Your task to perform on an android device: turn off notifications in google photos Image 0: 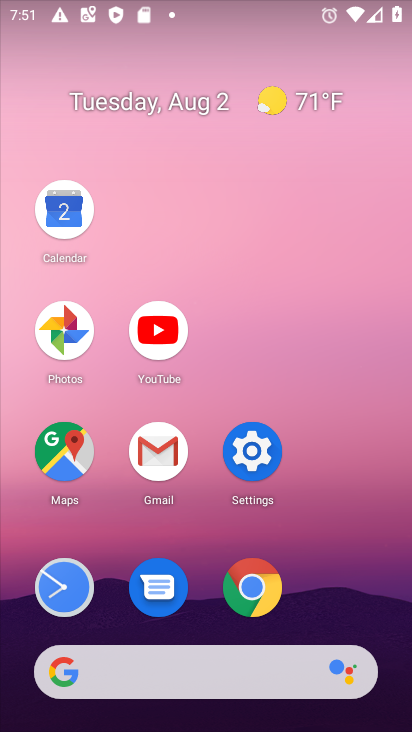
Step 0: click (64, 337)
Your task to perform on an android device: turn off notifications in google photos Image 1: 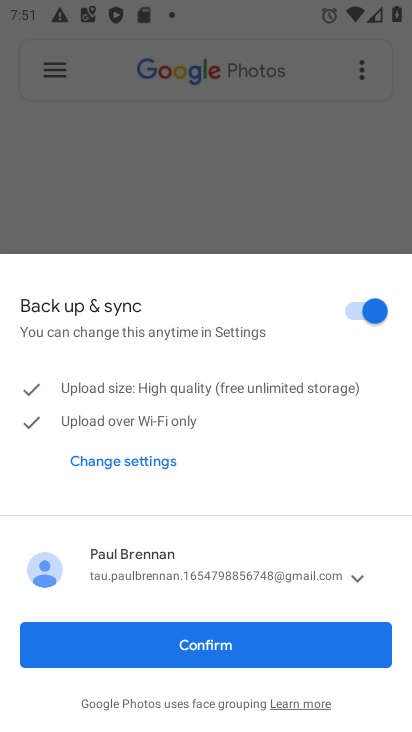
Step 1: click (240, 636)
Your task to perform on an android device: turn off notifications in google photos Image 2: 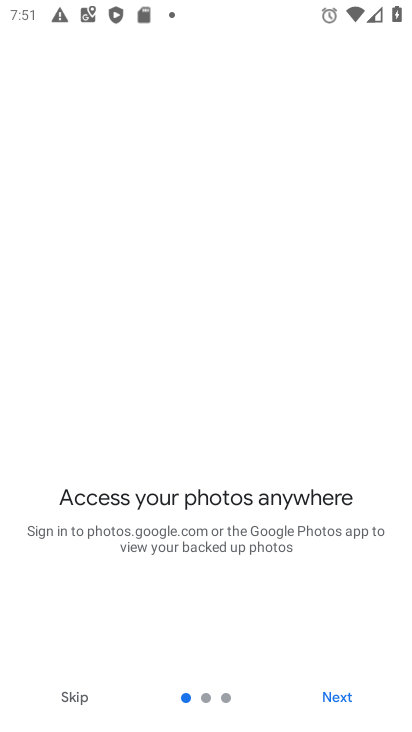
Step 2: click (345, 695)
Your task to perform on an android device: turn off notifications in google photos Image 3: 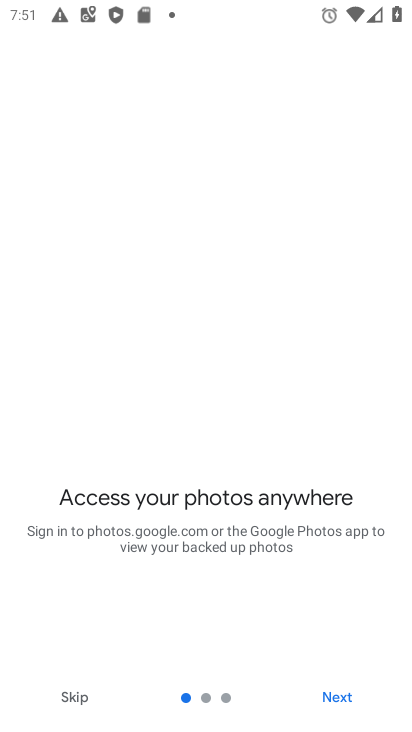
Step 3: click (345, 695)
Your task to perform on an android device: turn off notifications in google photos Image 4: 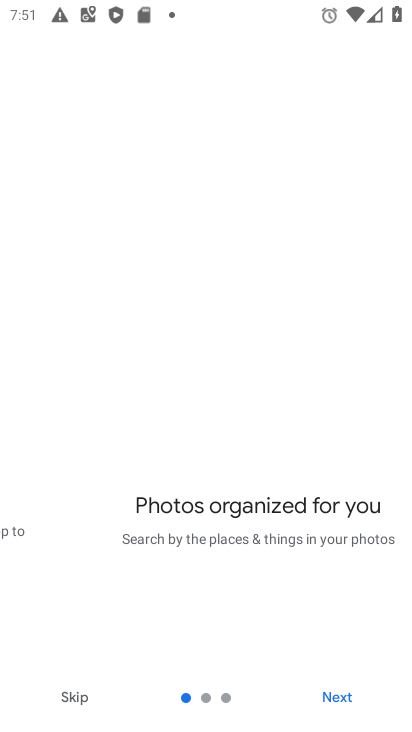
Step 4: click (345, 695)
Your task to perform on an android device: turn off notifications in google photos Image 5: 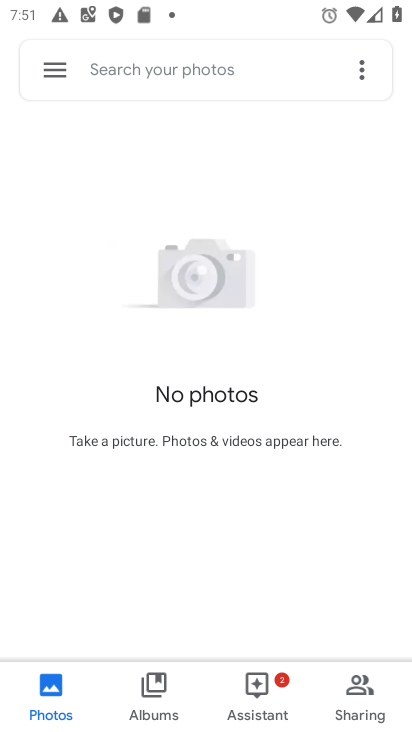
Step 5: click (51, 74)
Your task to perform on an android device: turn off notifications in google photos Image 6: 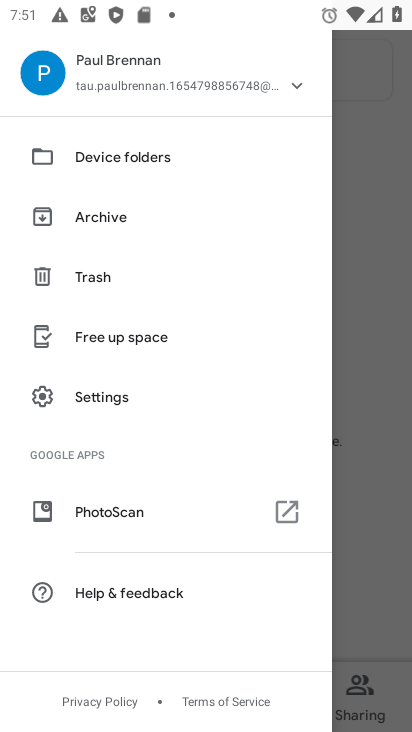
Step 6: click (102, 394)
Your task to perform on an android device: turn off notifications in google photos Image 7: 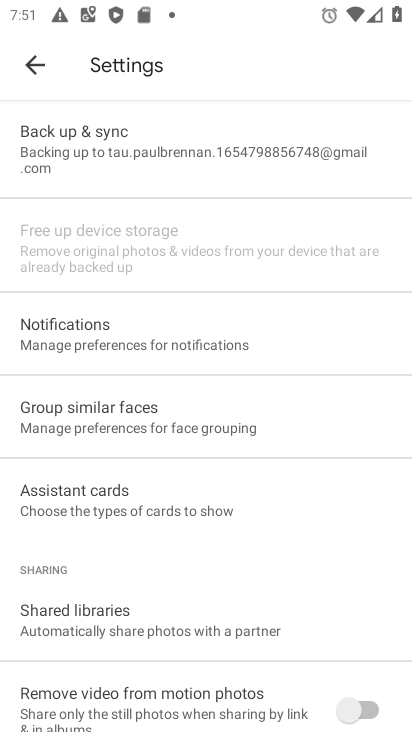
Step 7: click (79, 334)
Your task to perform on an android device: turn off notifications in google photos Image 8: 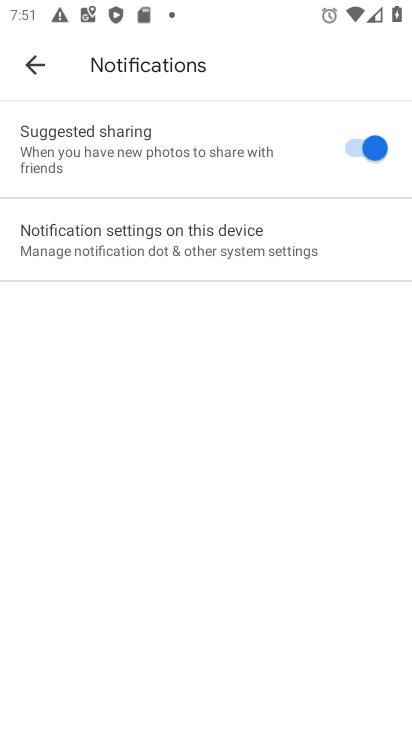
Step 8: click (382, 148)
Your task to perform on an android device: turn off notifications in google photos Image 9: 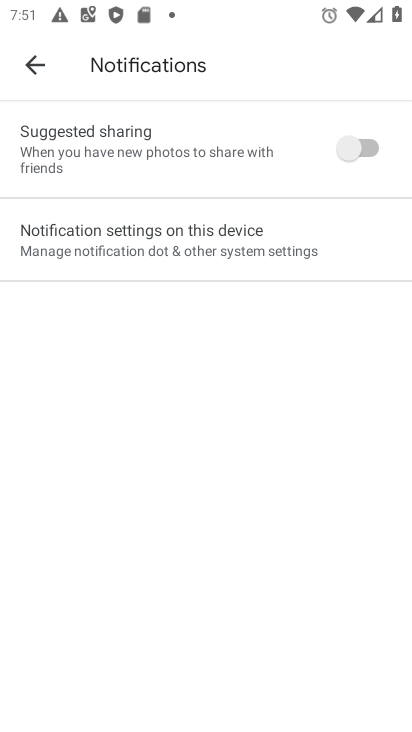
Step 9: task complete